Your task to perform on an android device: remove spam from my inbox in the gmail app Image 0: 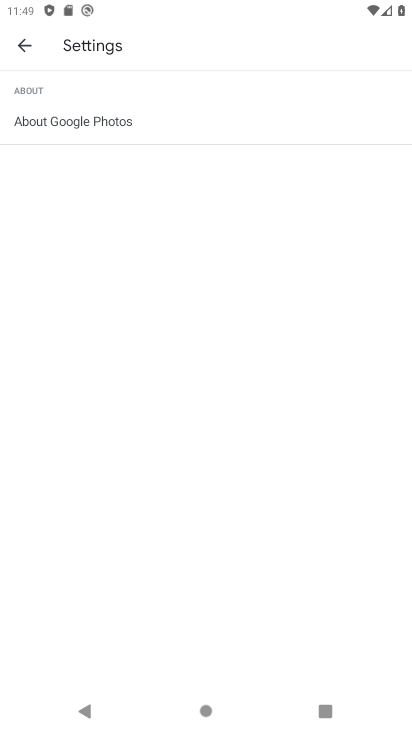
Step 0: press home button
Your task to perform on an android device: remove spam from my inbox in the gmail app Image 1: 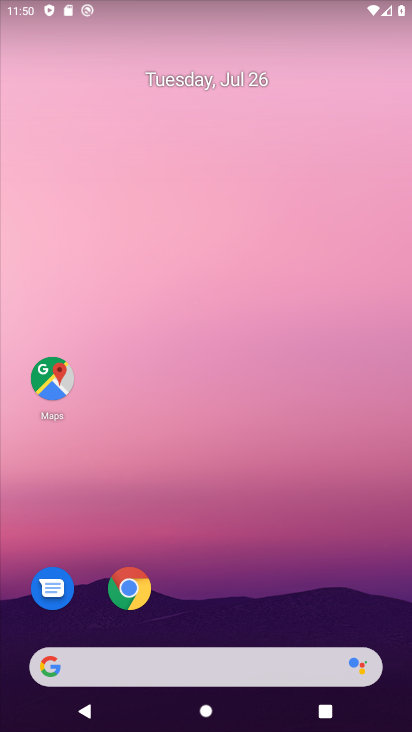
Step 1: drag from (39, 694) to (199, 280)
Your task to perform on an android device: remove spam from my inbox in the gmail app Image 2: 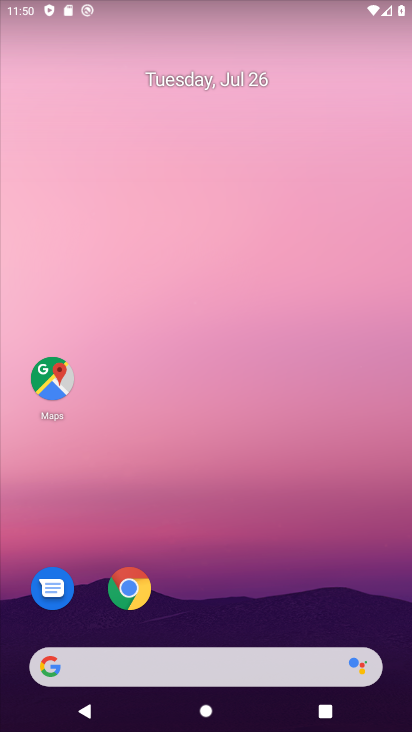
Step 2: drag from (21, 693) to (255, 64)
Your task to perform on an android device: remove spam from my inbox in the gmail app Image 3: 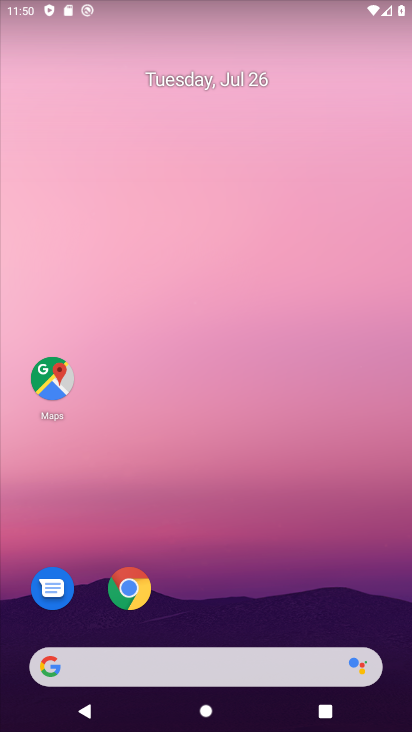
Step 3: drag from (92, 621) to (300, 62)
Your task to perform on an android device: remove spam from my inbox in the gmail app Image 4: 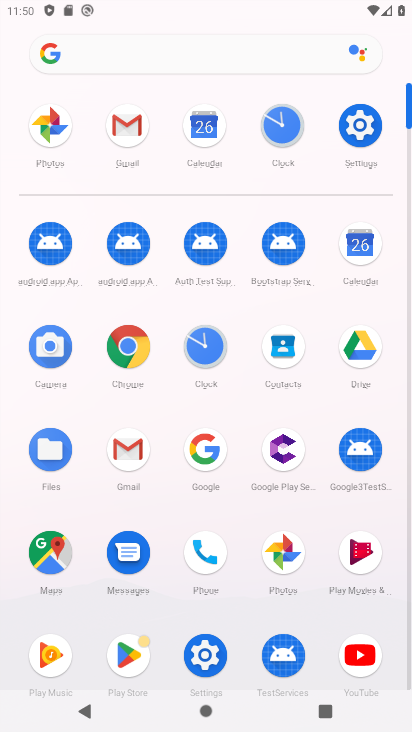
Step 4: click (140, 452)
Your task to perform on an android device: remove spam from my inbox in the gmail app Image 5: 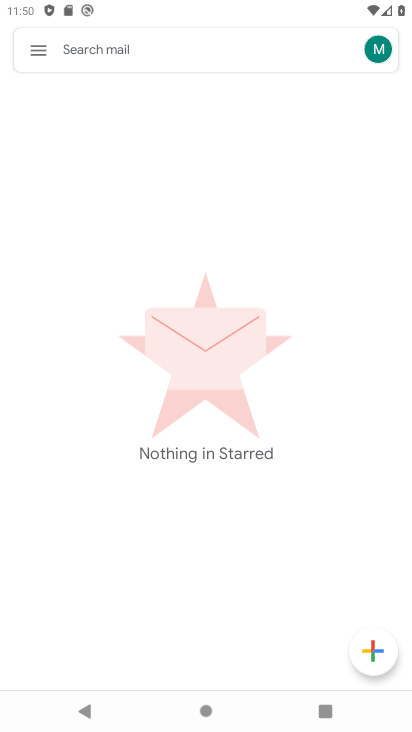
Step 5: click (38, 51)
Your task to perform on an android device: remove spam from my inbox in the gmail app Image 6: 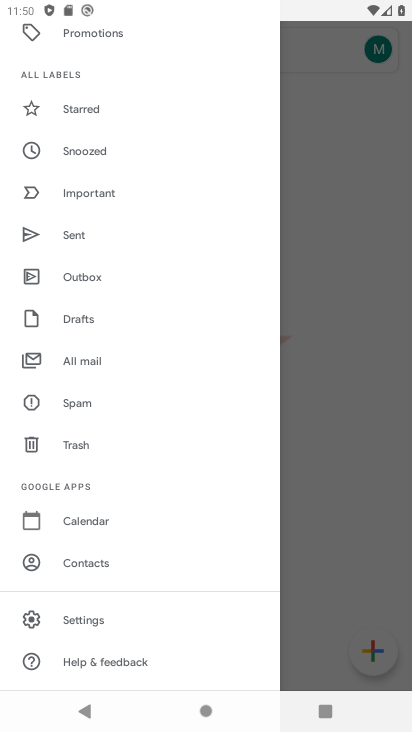
Step 6: click (92, 398)
Your task to perform on an android device: remove spam from my inbox in the gmail app Image 7: 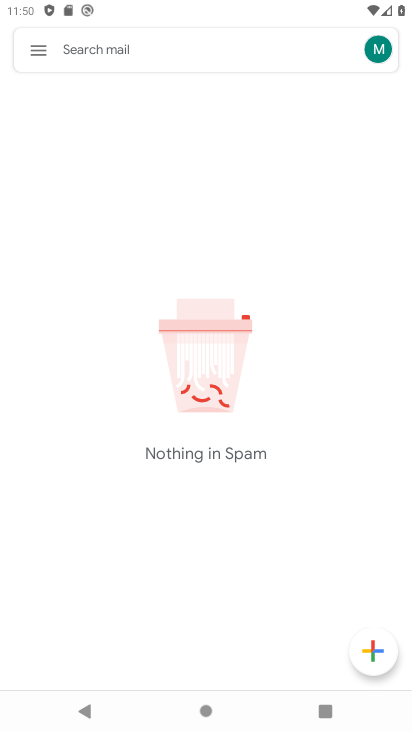
Step 7: task complete